Your task to perform on an android device: toggle translation in the chrome app Image 0: 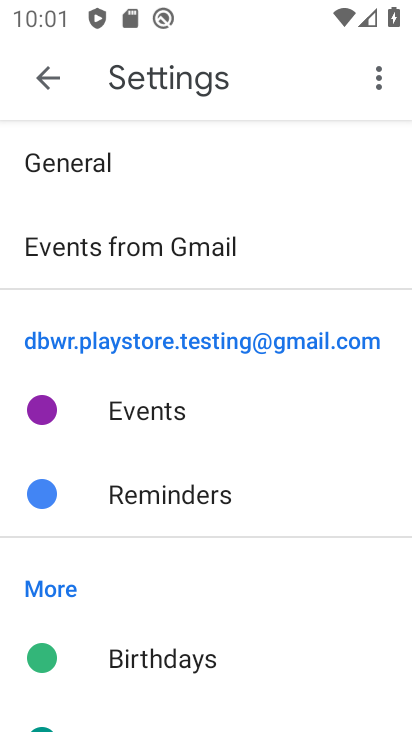
Step 0: press home button
Your task to perform on an android device: toggle translation in the chrome app Image 1: 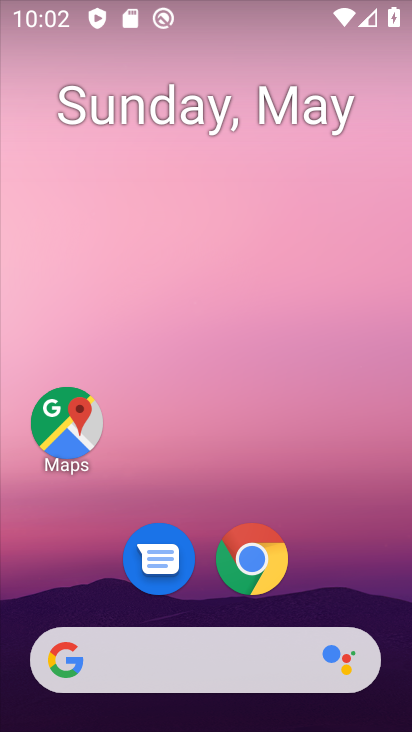
Step 1: click (259, 556)
Your task to perform on an android device: toggle translation in the chrome app Image 2: 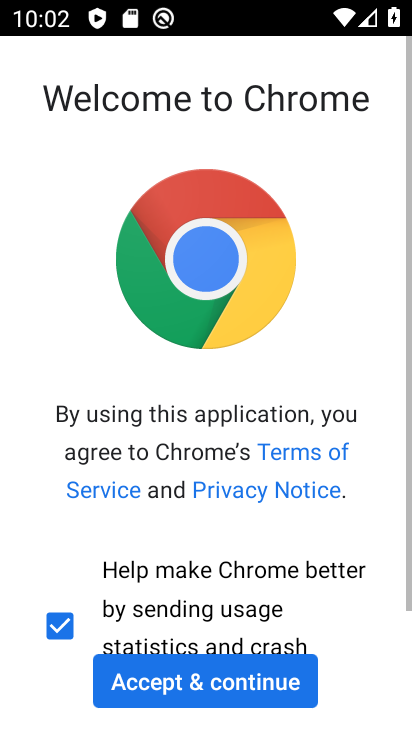
Step 2: click (182, 676)
Your task to perform on an android device: toggle translation in the chrome app Image 3: 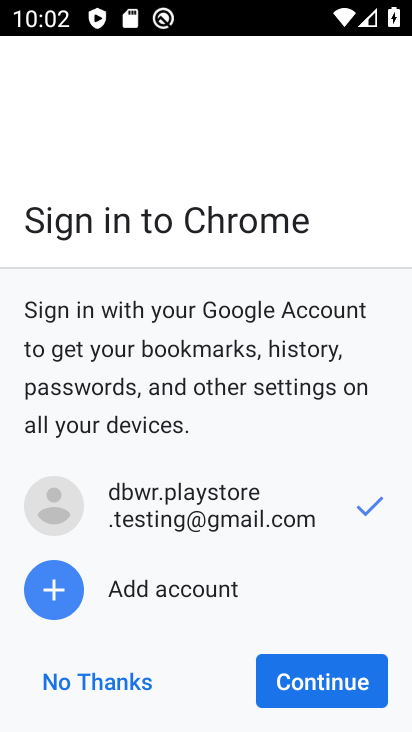
Step 3: click (309, 676)
Your task to perform on an android device: toggle translation in the chrome app Image 4: 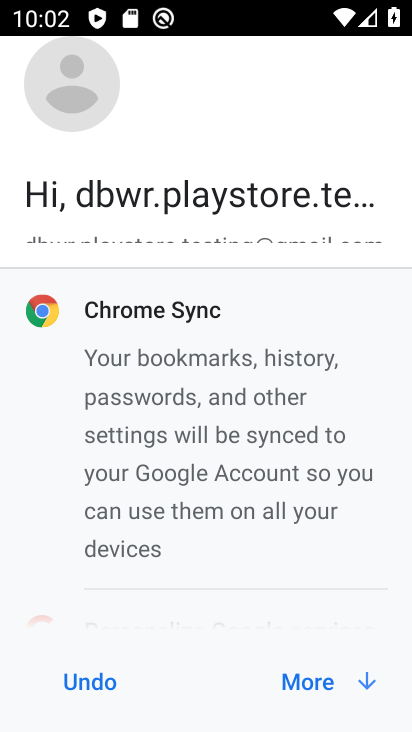
Step 4: click (309, 676)
Your task to perform on an android device: toggle translation in the chrome app Image 5: 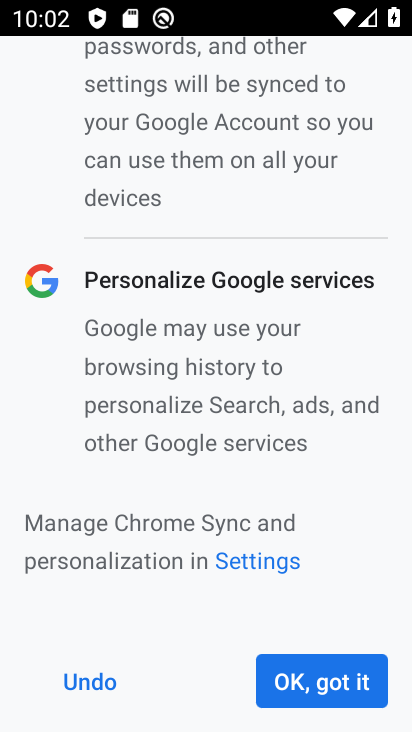
Step 5: click (309, 676)
Your task to perform on an android device: toggle translation in the chrome app Image 6: 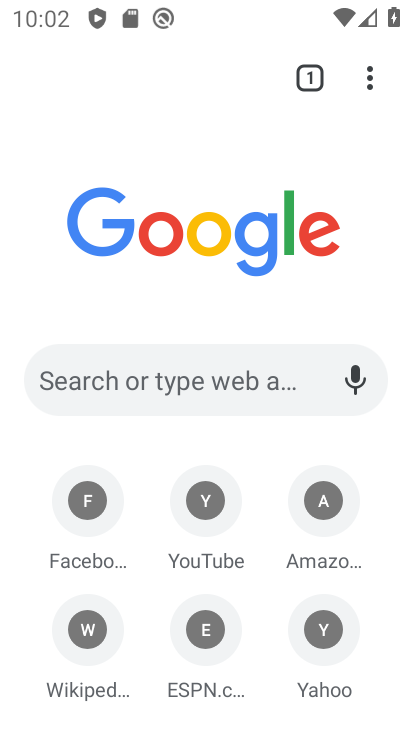
Step 6: drag from (366, 77) to (127, 646)
Your task to perform on an android device: toggle translation in the chrome app Image 7: 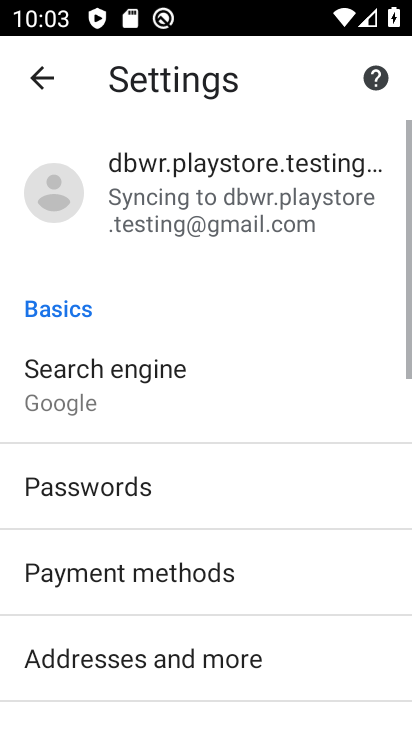
Step 7: drag from (127, 642) to (122, 274)
Your task to perform on an android device: toggle translation in the chrome app Image 8: 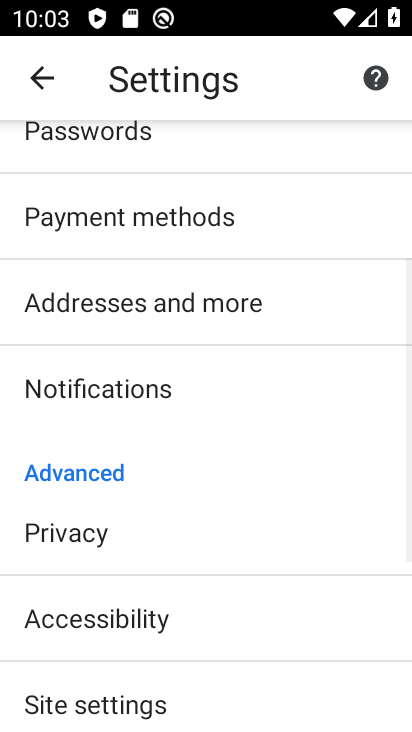
Step 8: drag from (171, 641) to (173, 399)
Your task to perform on an android device: toggle translation in the chrome app Image 9: 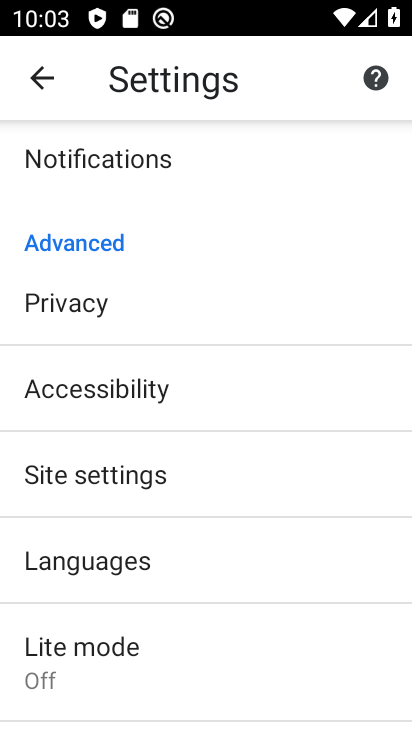
Step 9: click (169, 580)
Your task to perform on an android device: toggle translation in the chrome app Image 10: 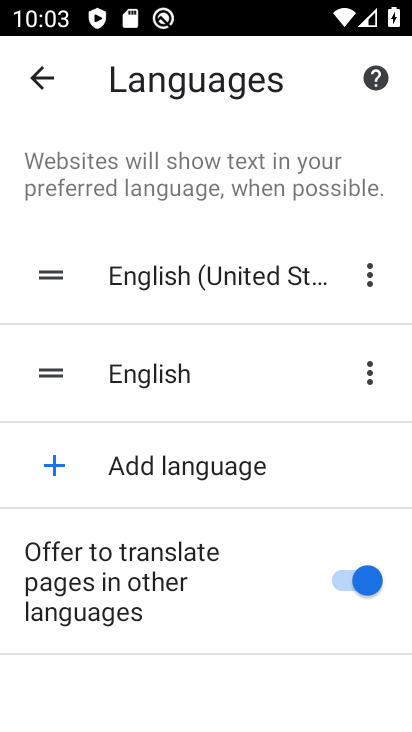
Step 10: click (216, 597)
Your task to perform on an android device: toggle translation in the chrome app Image 11: 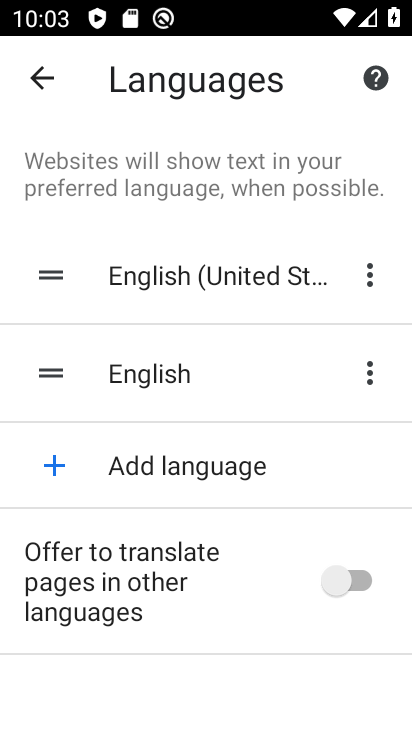
Step 11: task complete